Your task to perform on an android device: Open the Play Movies app and select the watchlist tab. Image 0: 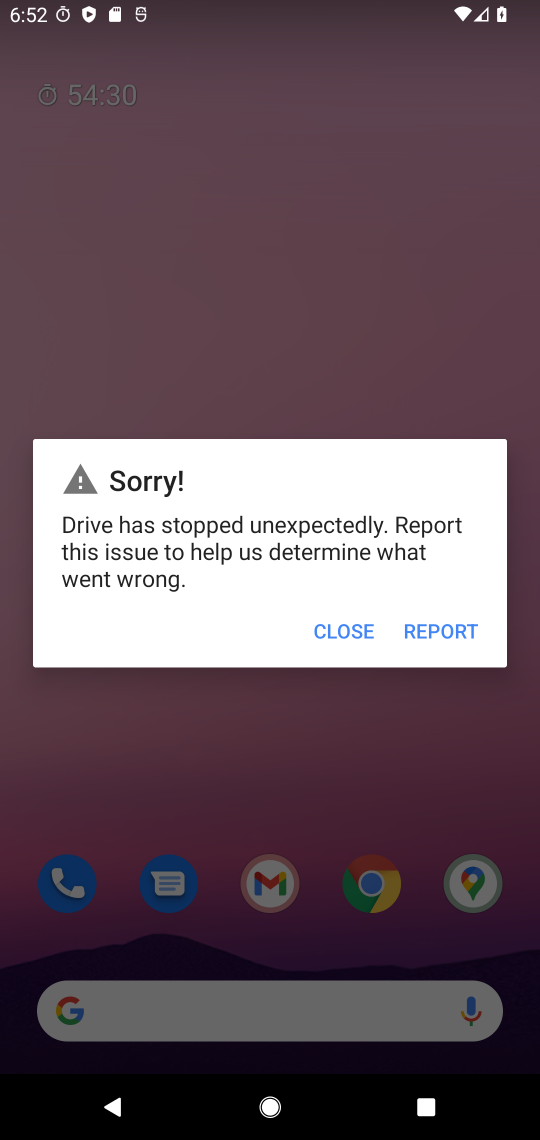
Step 0: press home button
Your task to perform on an android device: Open the Play Movies app and select the watchlist tab. Image 1: 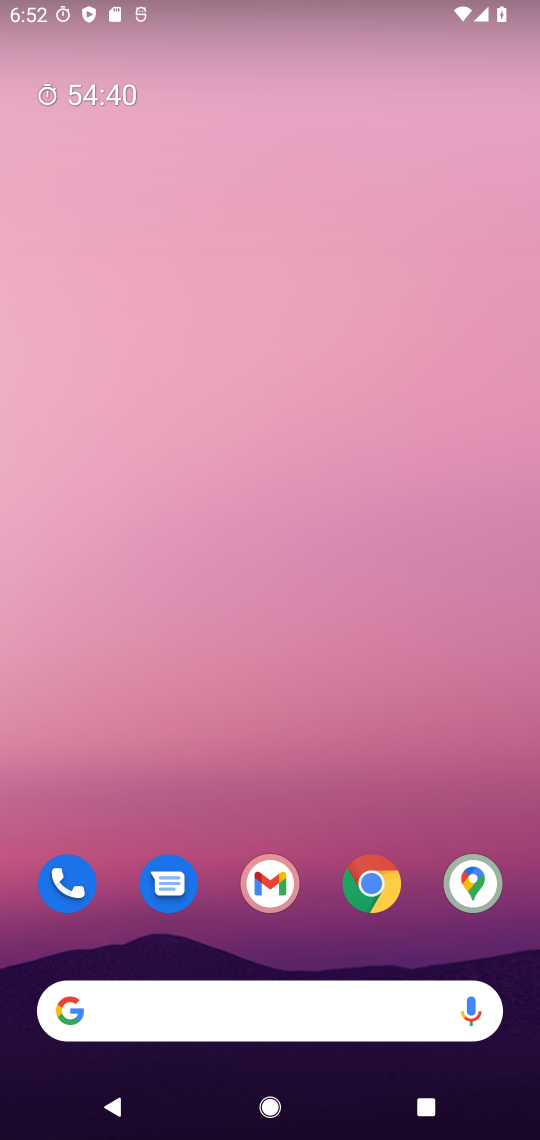
Step 1: task complete